Your task to perform on an android device: refresh tabs in the chrome app Image 0: 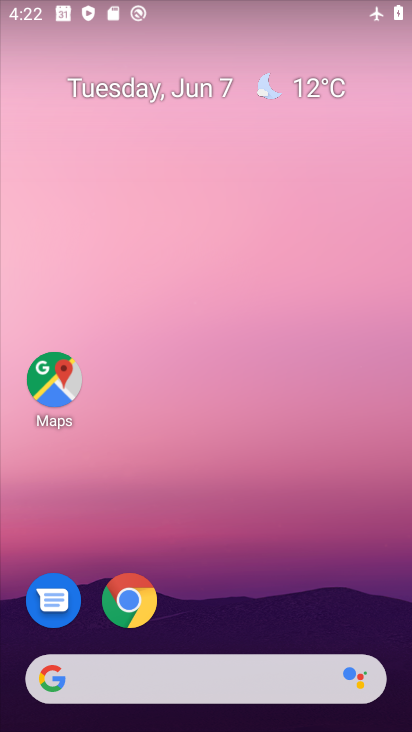
Step 0: click (132, 606)
Your task to perform on an android device: refresh tabs in the chrome app Image 1: 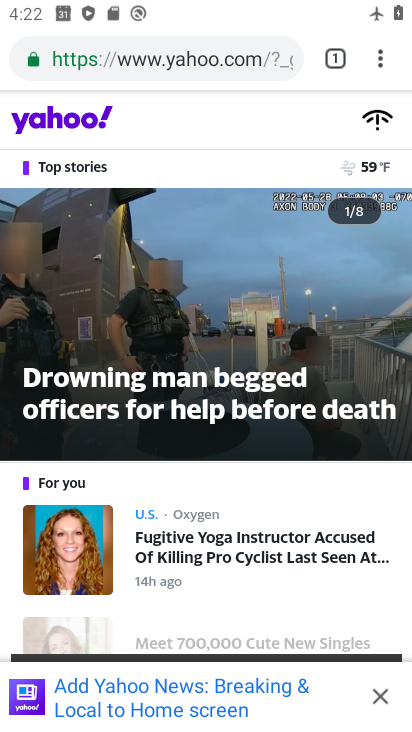
Step 1: click (378, 60)
Your task to perform on an android device: refresh tabs in the chrome app Image 2: 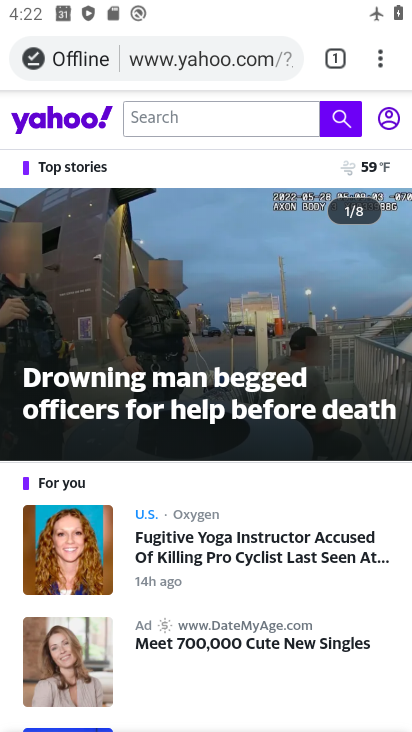
Step 2: click (378, 60)
Your task to perform on an android device: refresh tabs in the chrome app Image 3: 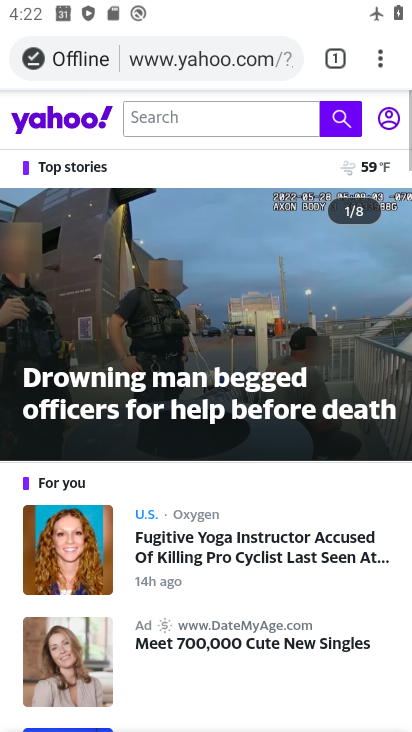
Step 3: click (378, 60)
Your task to perform on an android device: refresh tabs in the chrome app Image 4: 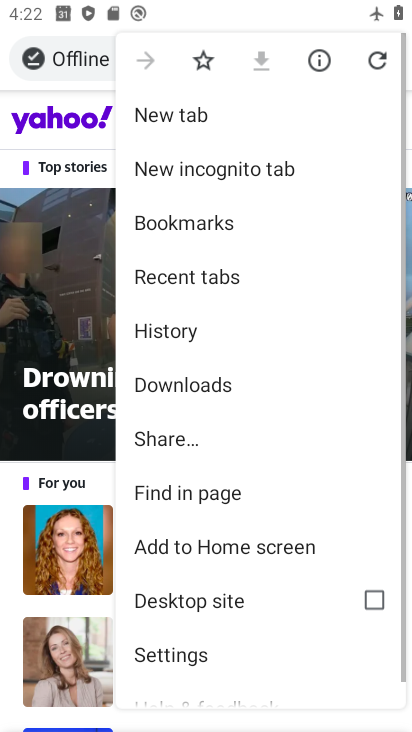
Step 4: click (378, 60)
Your task to perform on an android device: refresh tabs in the chrome app Image 5: 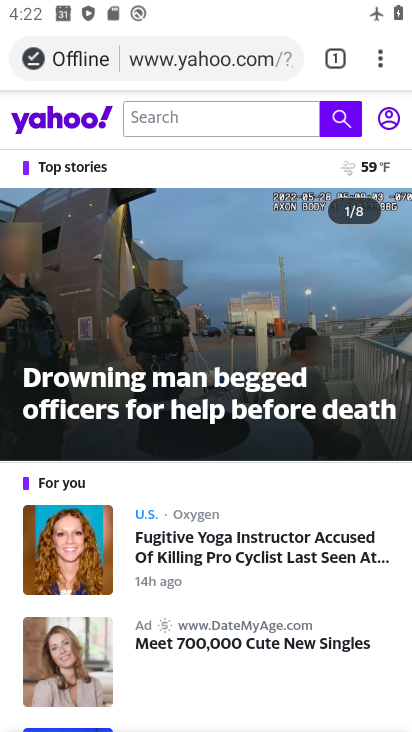
Step 5: task complete